Your task to perform on an android device: set default search engine in the chrome app Image 0: 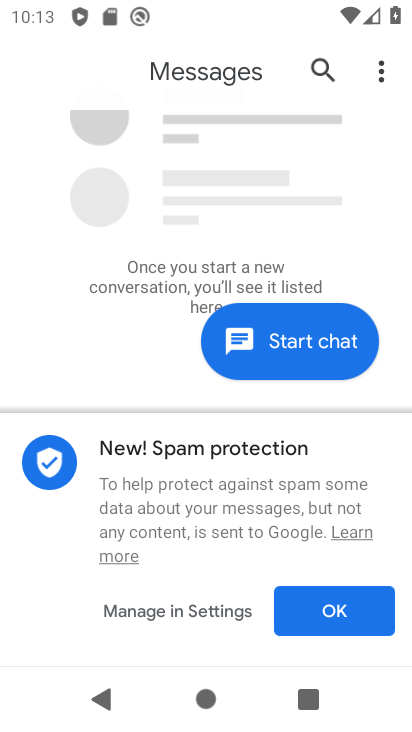
Step 0: press home button
Your task to perform on an android device: set default search engine in the chrome app Image 1: 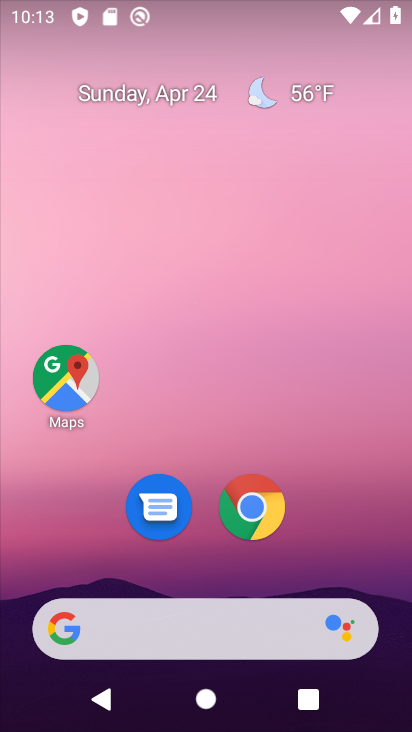
Step 1: click (250, 503)
Your task to perform on an android device: set default search engine in the chrome app Image 2: 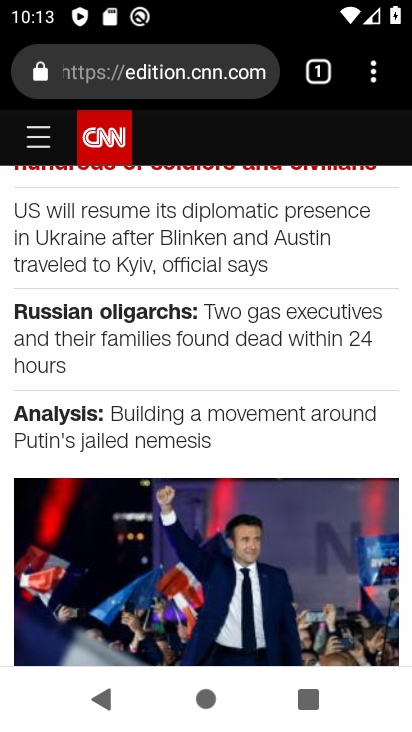
Step 2: click (372, 74)
Your task to perform on an android device: set default search engine in the chrome app Image 3: 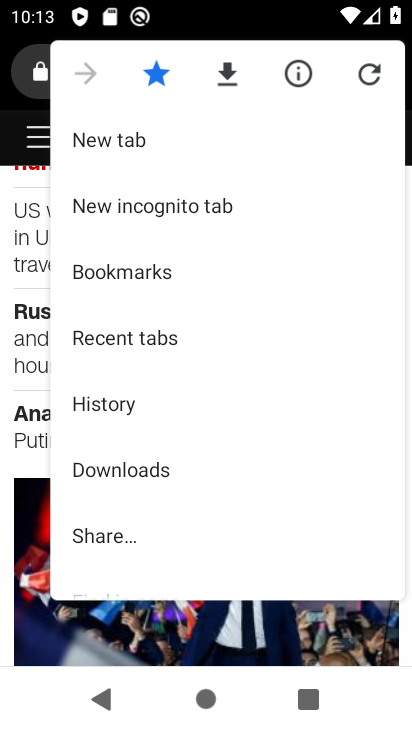
Step 3: drag from (189, 546) to (248, 215)
Your task to perform on an android device: set default search engine in the chrome app Image 4: 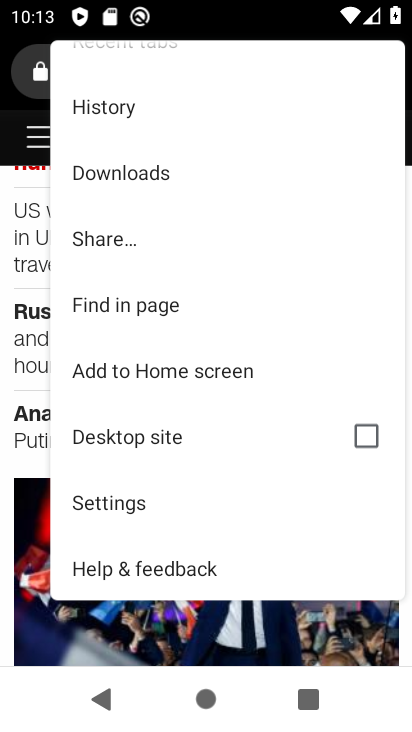
Step 4: click (106, 494)
Your task to perform on an android device: set default search engine in the chrome app Image 5: 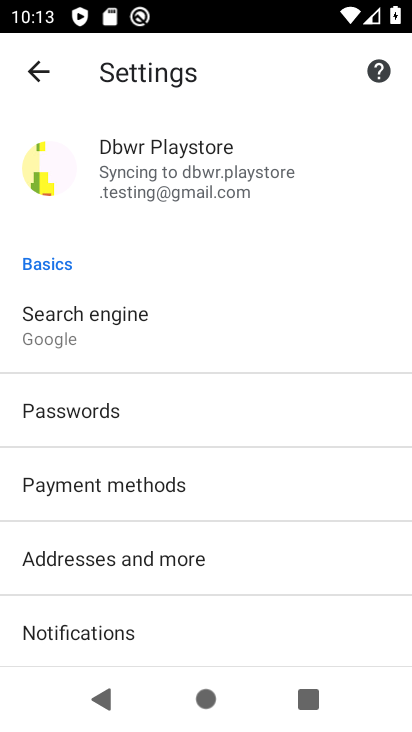
Step 5: click (72, 329)
Your task to perform on an android device: set default search engine in the chrome app Image 6: 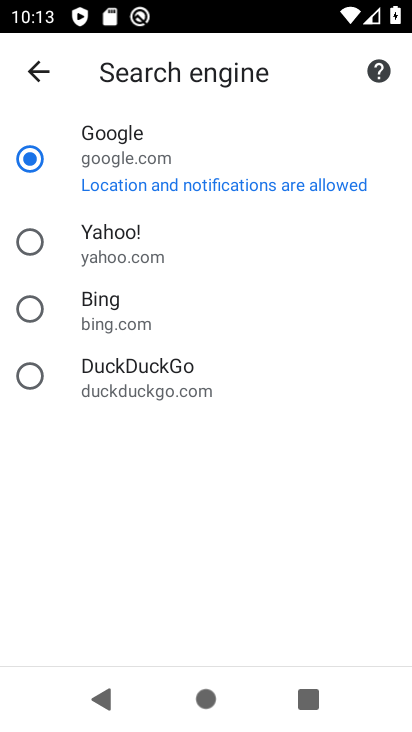
Step 6: click (27, 249)
Your task to perform on an android device: set default search engine in the chrome app Image 7: 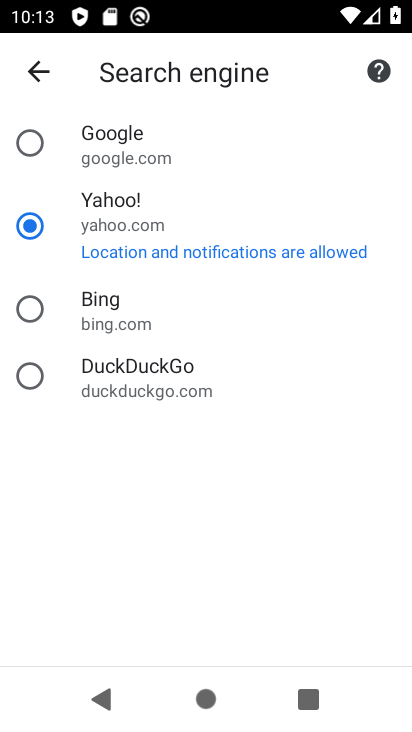
Step 7: task complete